Your task to perform on an android device: toggle notification dots Image 0: 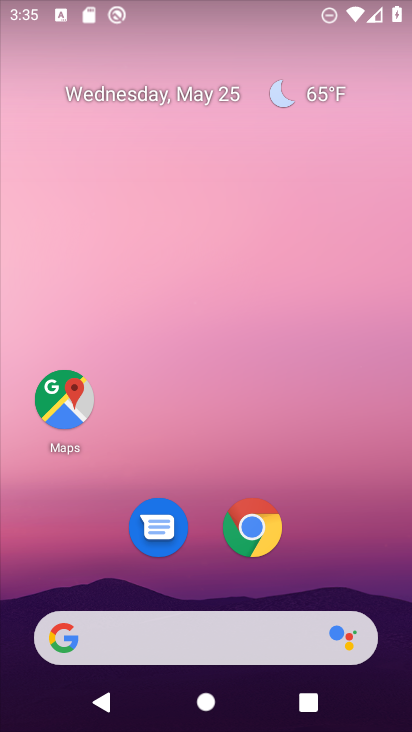
Step 0: drag from (305, 659) to (248, 134)
Your task to perform on an android device: toggle notification dots Image 1: 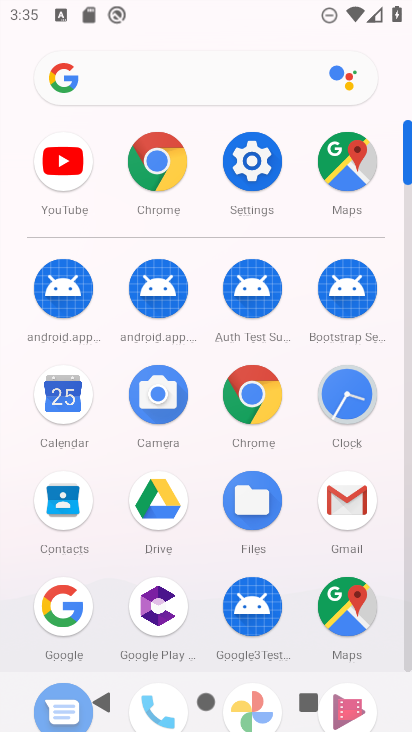
Step 1: click (267, 152)
Your task to perform on an android device: toggle notification dots Image 2: 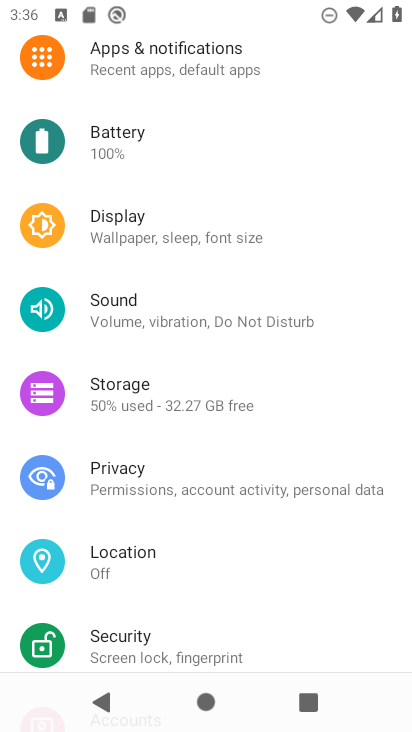
Step 2: click (236, 46)
Your task to perform on an android device: toggle notification dots Image 3: 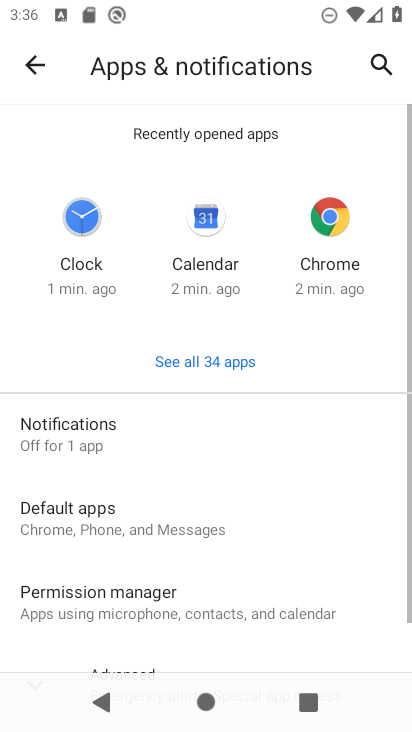
Step 3: drag from (220, 367) to (222, 148)
Your task to perform on an android device: toggle notification dots Image 4: 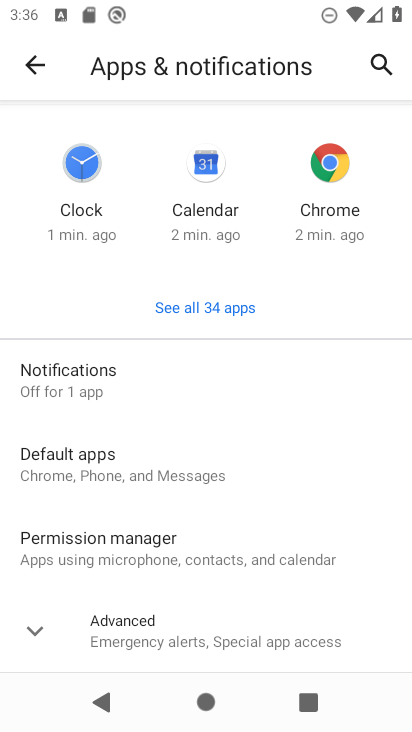
Step 4: click (111, 372)
Your task to perform on an android device: toggle notification dots Image 5: 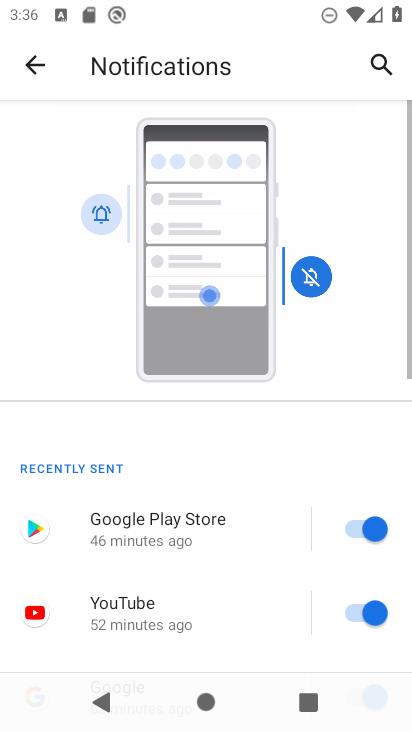
Step 5: drag from (196, 596) to (238, 20)
Your task to perform on an android device: toggle notification dots Image 6: 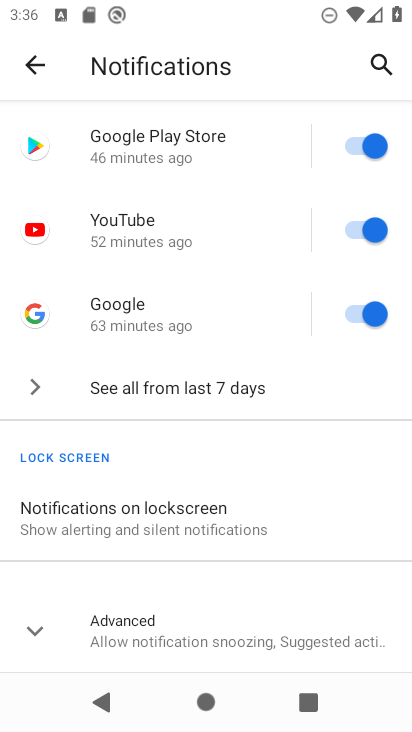
Step 6: click (220, 646)
Your task to perform on an android device: toggle notification dots Image 7: 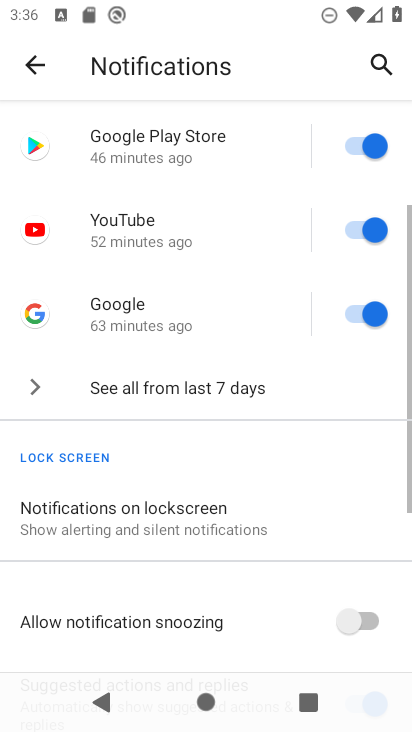
Step 7: drag from (221, 645) to (237, 117)
Your task to perform on an android device: toggle notification dots Image 8: 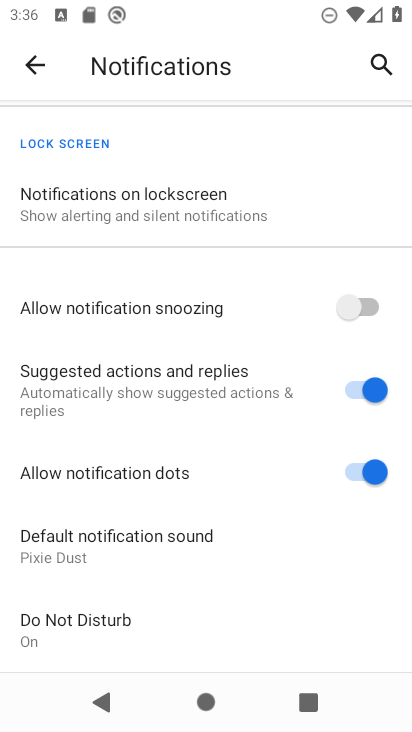
Step 8: click (362, 473)
Your task to perform on an android device: toggle notification dots Image 9: 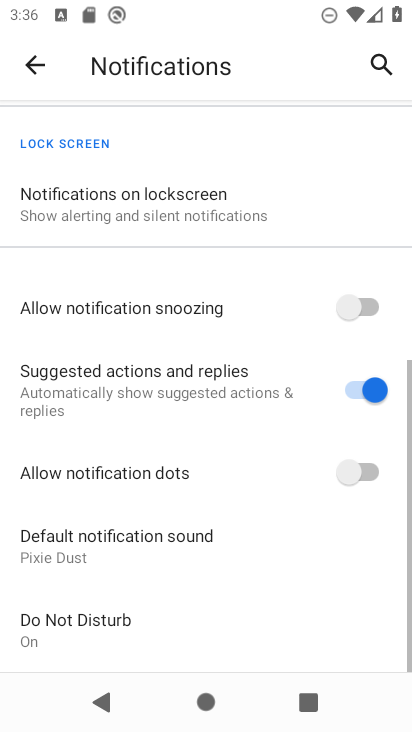
Step 9: task complete